Your task to perform on an android device: Go to notification settings Image 0: 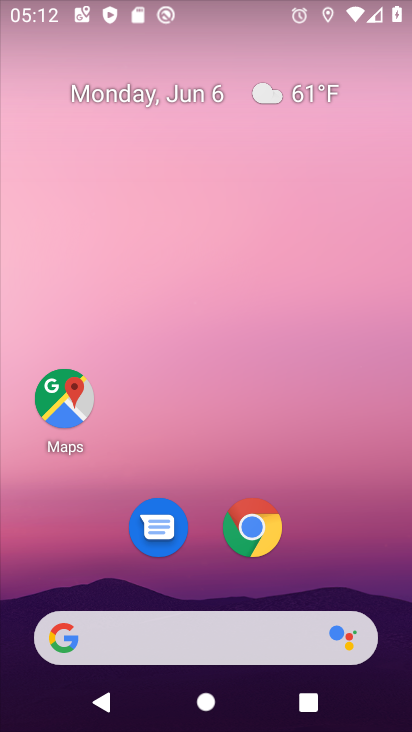
Step 0: drag from (398, 712) to (344, 215)
Your task to perform on an android device: Go to notification settings Image 1: 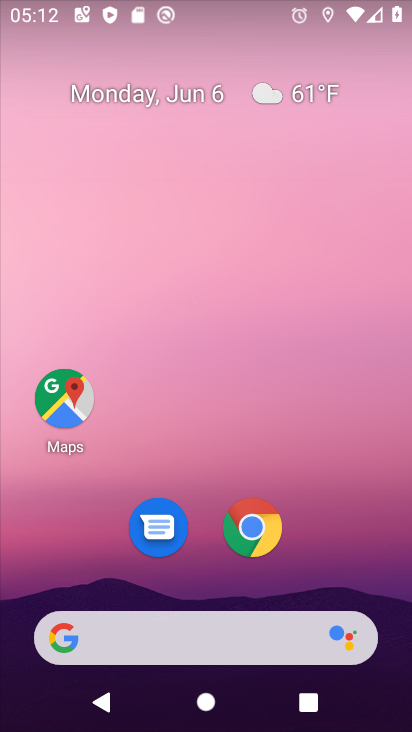
Step 1: drag from (394, 647) to (343, 119)
Your task to perform on an android device: Go to notification settings Image 2: 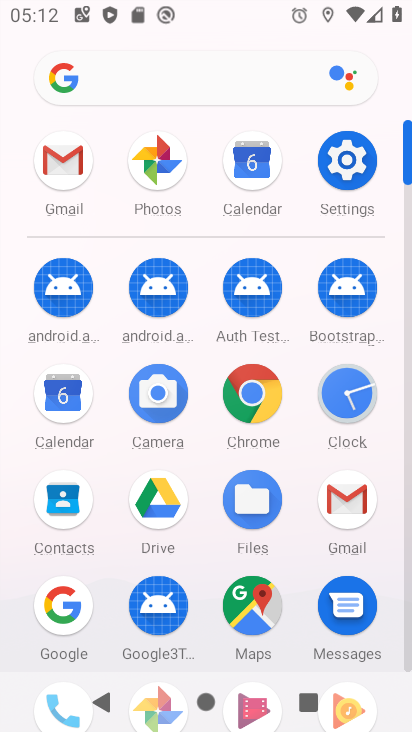
Step 2: click (340, 165)
Your task to perform on an android device: Go to notification settings Image 3: 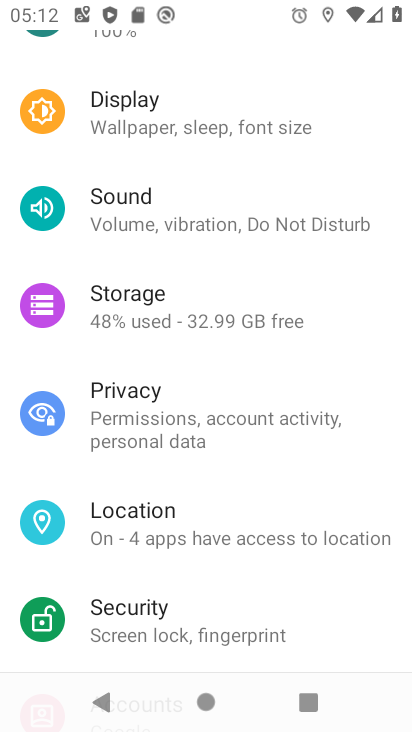
Step 3: drag from (228, 108) to (236, 552)
Your task to perform on an android device: Go to notification settings Image 4: 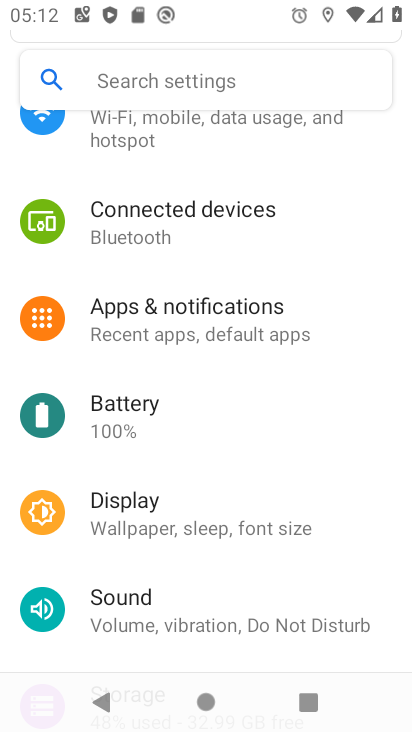
Step 4: click (193, 309)
Your task to perform on an android device: Go to notification settings Image 5: 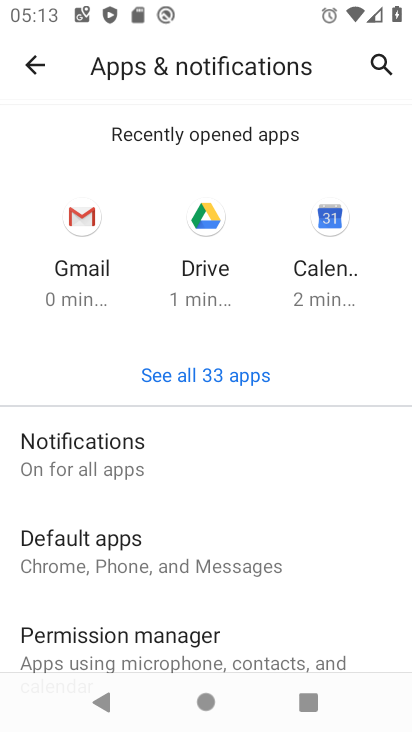
Step 5: click (100, 460)
Your task to perform on an android device: Go to notification settings Image 6: 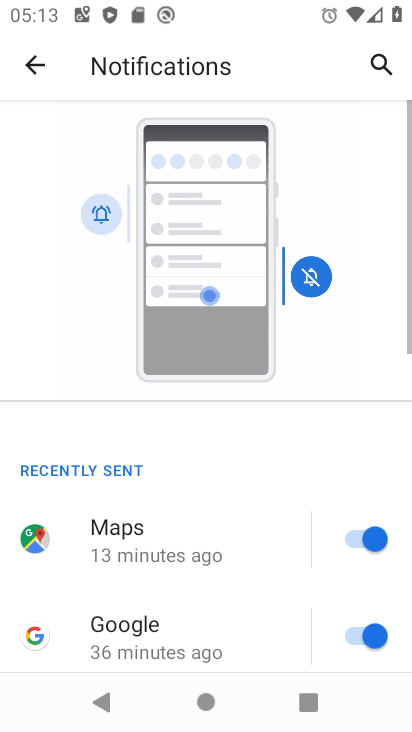
Step 6: task complete